Your task to perform on an android device: toggle wifi Image 0: 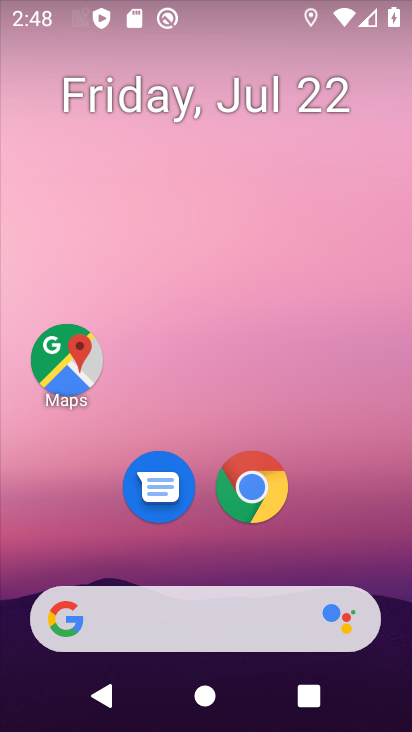
Step 0: drag from (172, 80) to (155, 539)
Your task to perform on an android device: toggle wifi Image 1: 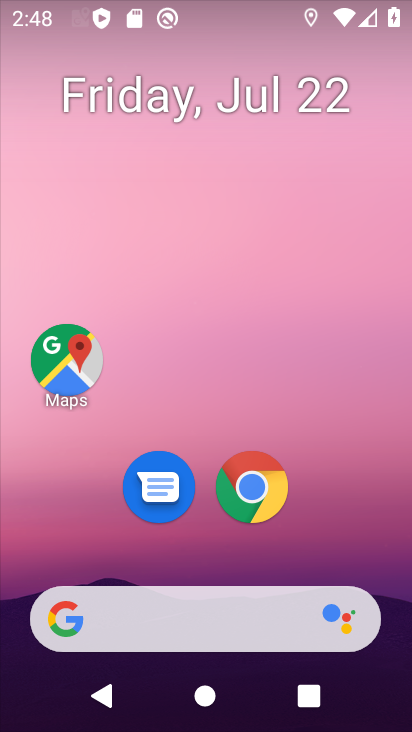
Step 1: drag from (179, 10) to (124, 468)
Your task to perform on an android device: toggle wifi Image 2: 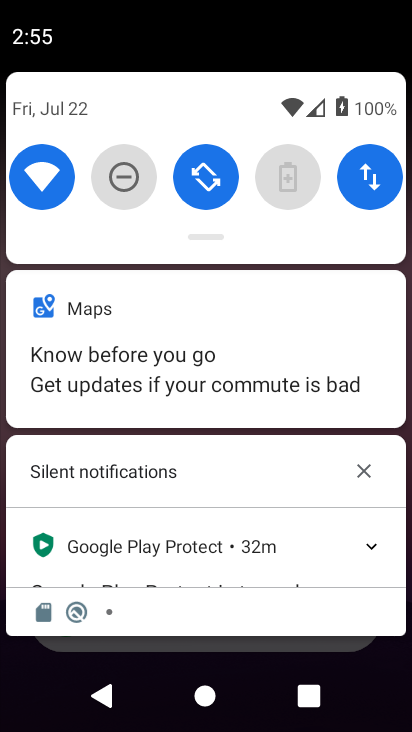
Step 2: click (16, 185)
Your task to perform on an android device: toggle wifi Image 3: 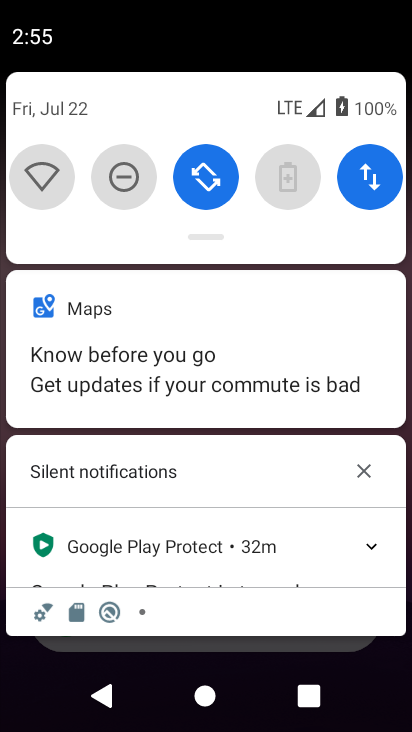
Step 3: task complete